Your task to perform on an android device: turn off translation in the chrome app Image 0: 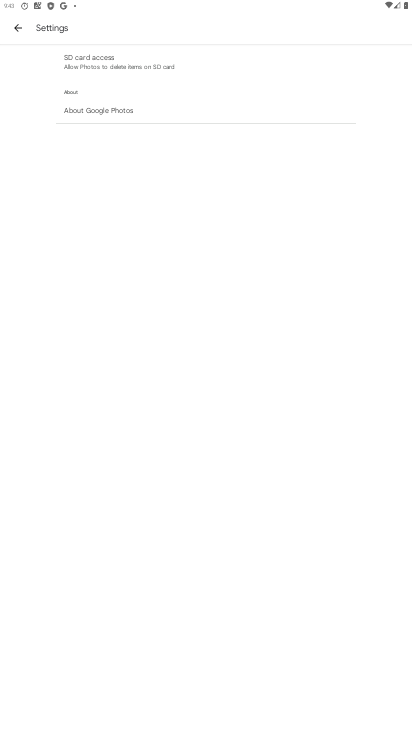
Step 0: press home button
Your task to perform on an android device: turn off translation in the chrome app Image 1: 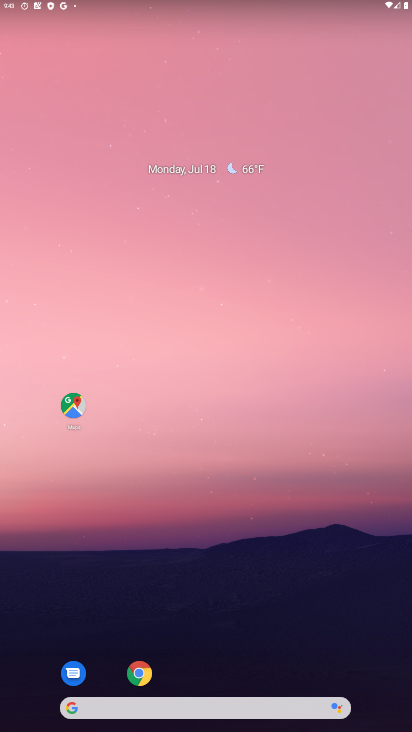
Step 1: click (142, 673)
Your task to perform on an android device: turn off translation in the chrome app Image 2: 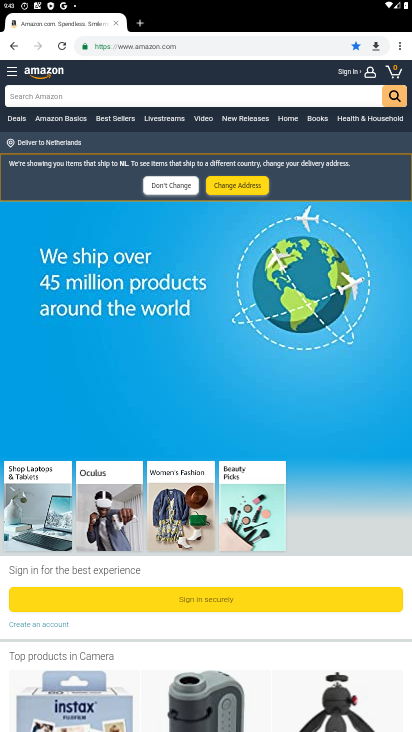
Step 2: click (396, 49)
Your task to perform on an android device: turn off translation in the chrome app Image 3: 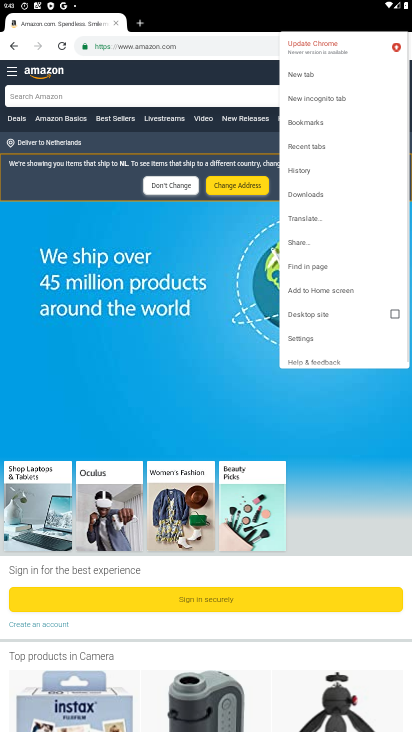
Step 3: click (295, 338)
Your task to perform on an android device: turn off translation in the chrome app Image 4: 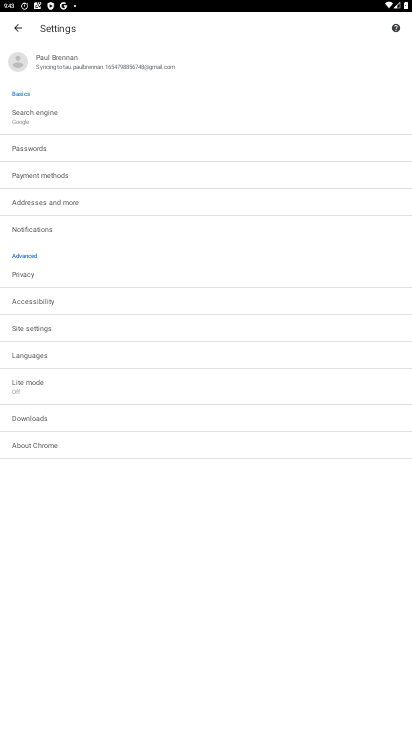
Step 4: click (40, 353)
Your task to perform on an android device: turn off translation in the chrome app Image 5: 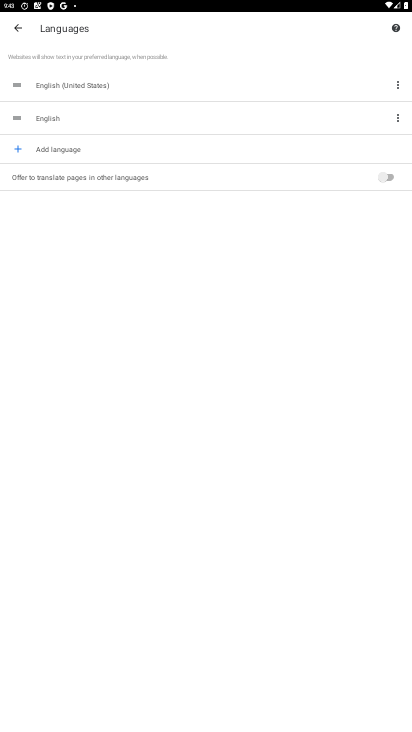
Step 5: task complete